Your task to perform on an android device: Turn off the flashlight Image 0: 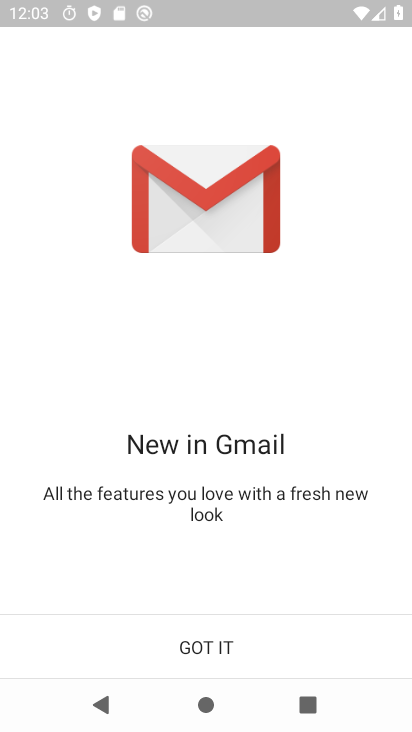
Step 0: press back button
Your task to perform on an android device: Turn off the flashlight Image 1: 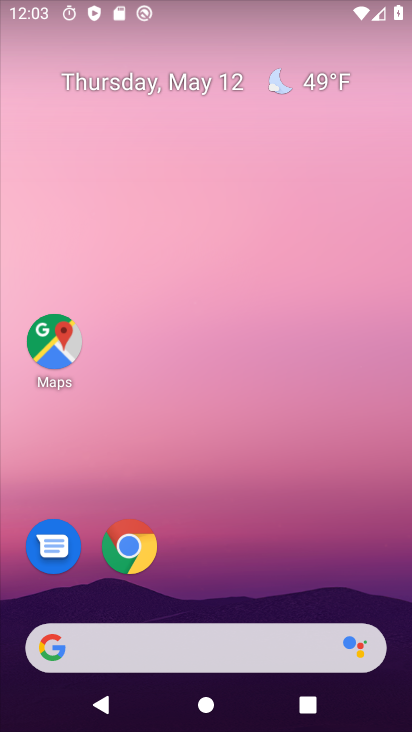
Step 1: task complete